Your task to perform on an android device: turn on the 24-hour format for clock Image 0: 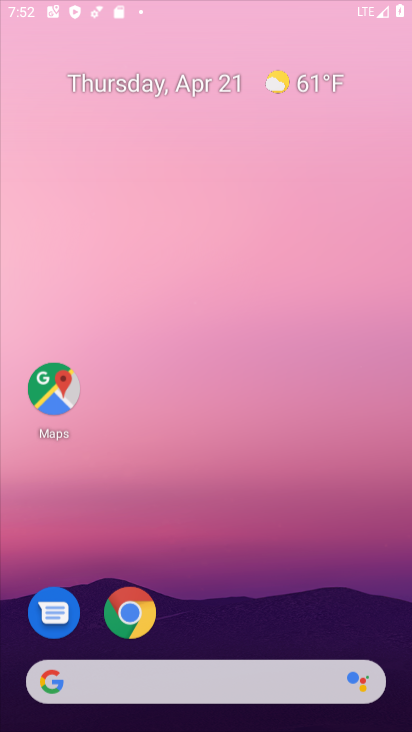
Step 0: click (409, 530)
Your task to perform on an android device: turn on the 24-hour format for clock Image 1: 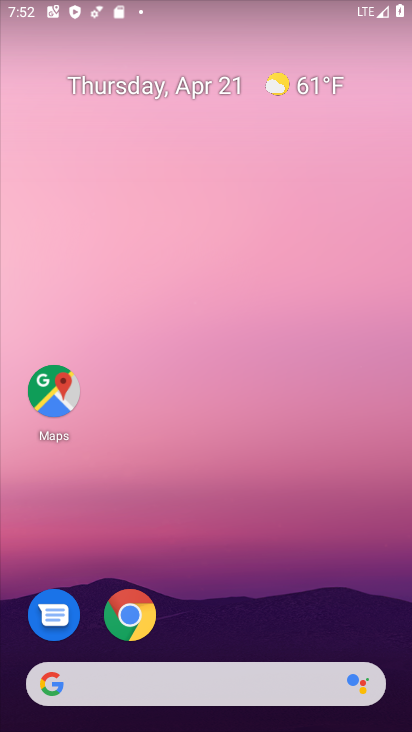
Step 1: drag from (221, 645) to (300, 11)
Your task to perform on an android device: turn on the 24-hour format for clock Image 2: 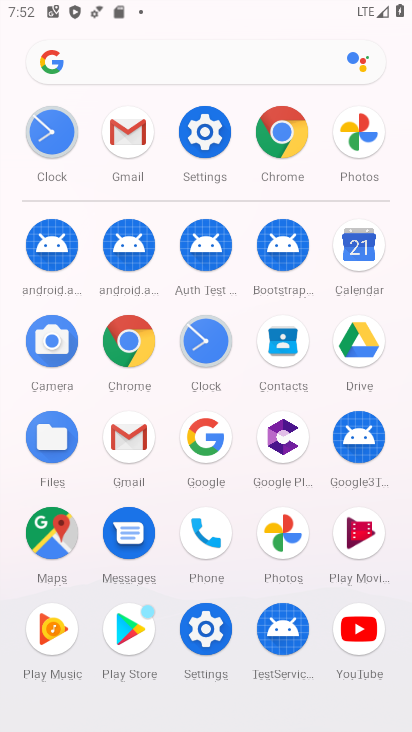
Step 2: click (203, 333)
Your task to perform on an android device: turn on the 24-hour format for clock Image 3: 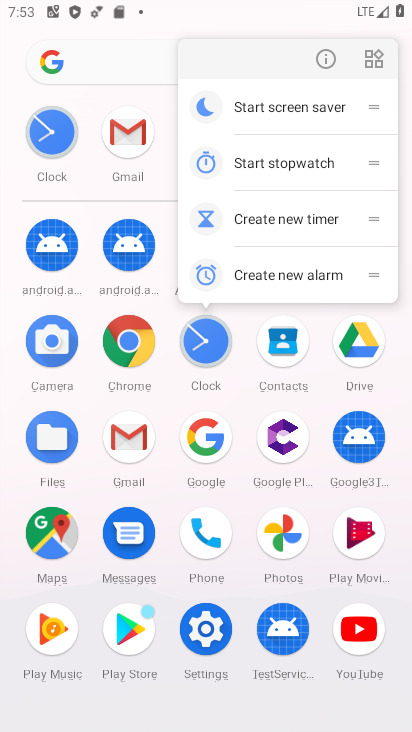
Step 3: click (329, 52)
Your task to perform on an android device: turn on the 24-hour format for clock Image 4: 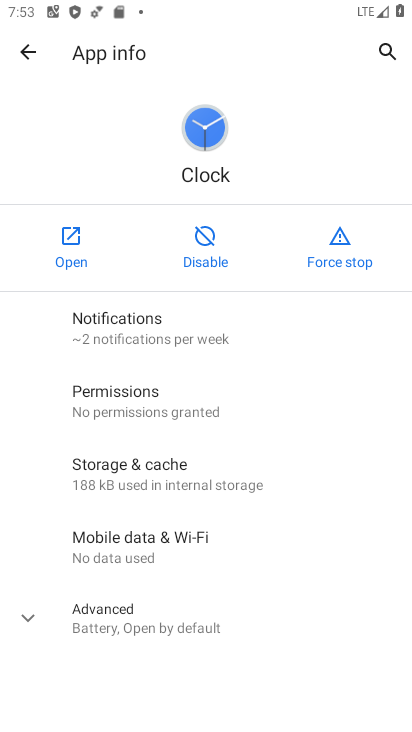
Step 4: click (77, 245)
Your task to perform on an android device: turn on the 24-hour format for clock Image 5: 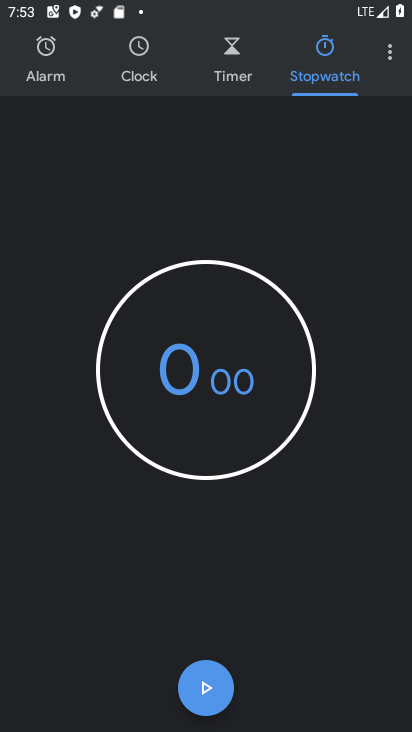
Step 5: drag from (243, 564) to (271, 322)
Your task to perform on an android device: turn on the 24-hour format for clock Image 6: 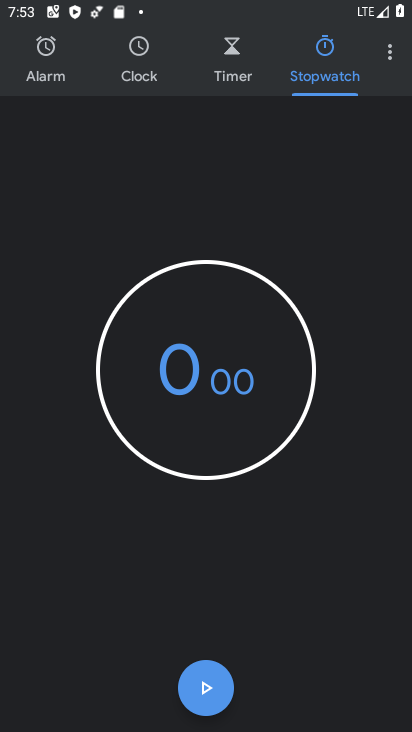
Step 6: drag from (387, 45) to (305, 112)
Your task to perform on an android device: turn on the 24-hour format for clock Image 7: 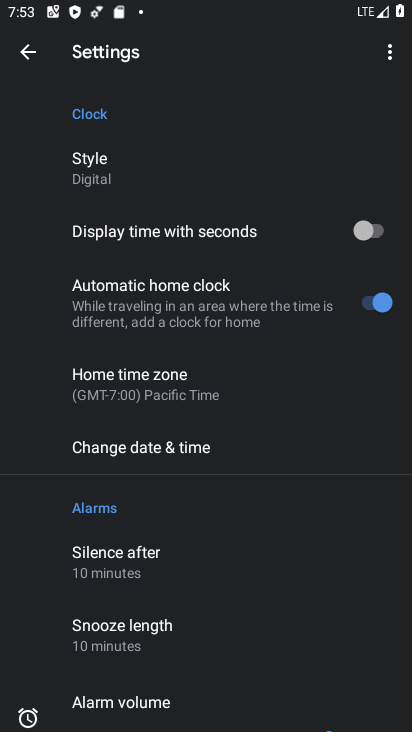
Step 7: drag from (231, 441) to (292, 258)
Your task to perform on an android device: turn on the 24-hour format for clock Image 8: 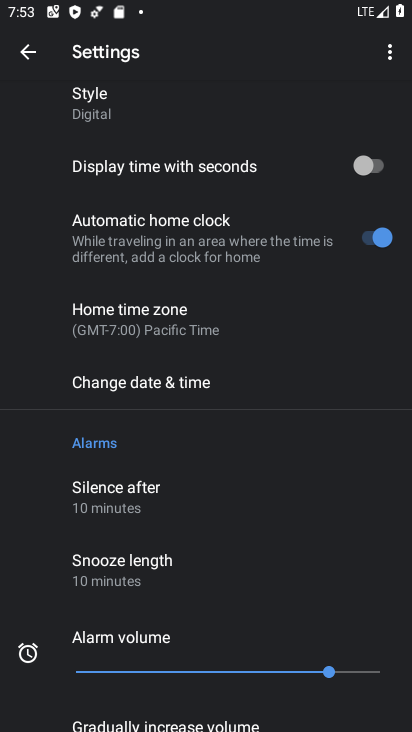
Step 8: drag from (225, 513) to (277, 172)
Your task to perform on an android device: turn on the 24-hour format for clock Image 9: 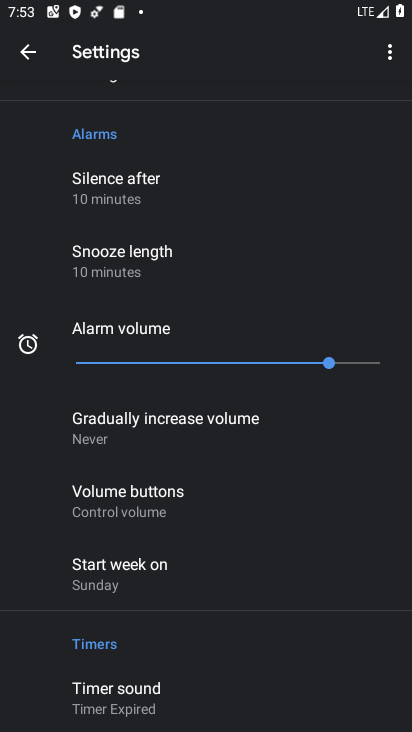
Step 9: drag from (203, 250) to (300, 653)
Your task to perform on an android device: turn on the 24-hour format for clock Image 10: 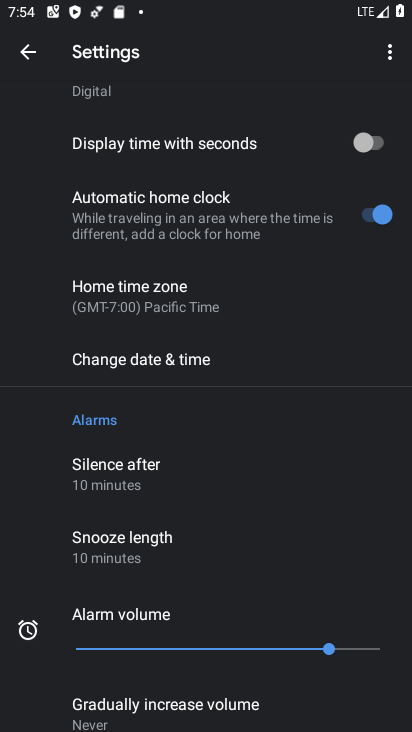
Step 10: click (162, 359)
Your task to perform on an android device: turn on the 24-hour format for clock Image 11: 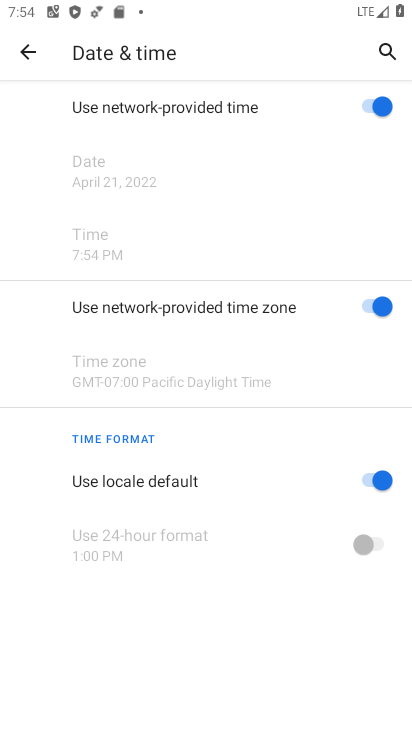
Step 11: click (388, 479)
Your task to perform on an android device: turn on the 24-hour format for clock Image 12: 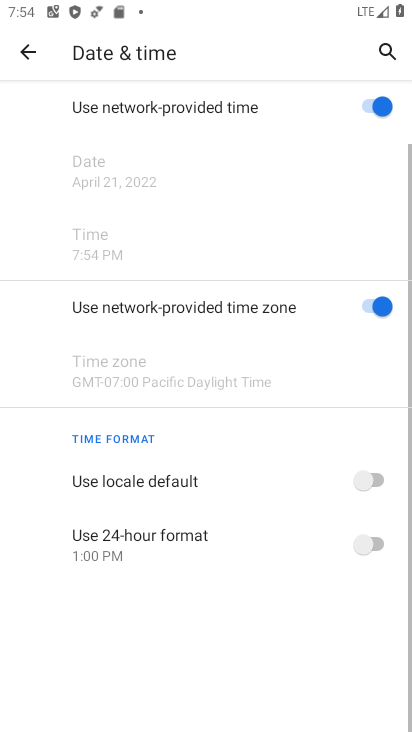
Step 12: click (349, 538)
Your task to perform on an android device: turn on the 24-hour format for clock Image 13: 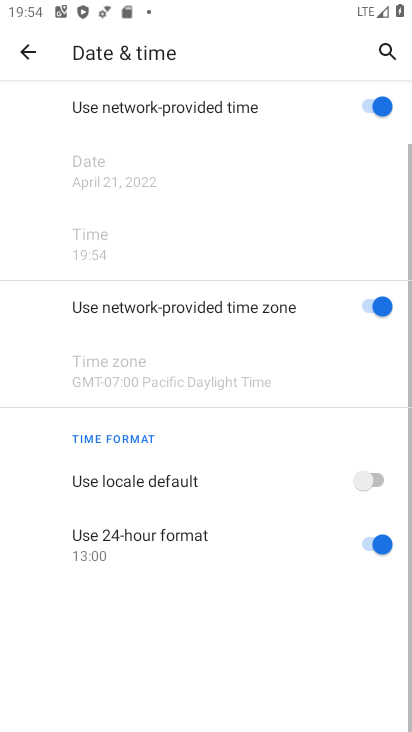
Step 13: task complete